Your task to perform on an android device: toggle sleep mode Image 0: 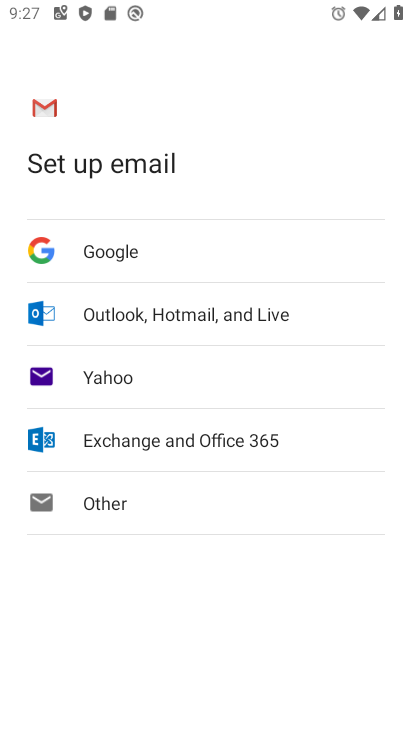
Step 0: drag from (197, 501) to (233, 246)
Your task to perform on an android device: toggle sleep mode Image 1: 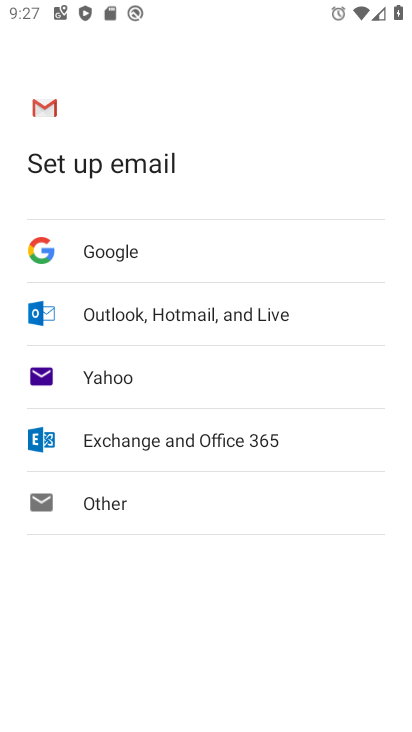
Step 1: press home button
Your task to perform on an android device: toggle sleep mode Image 2: 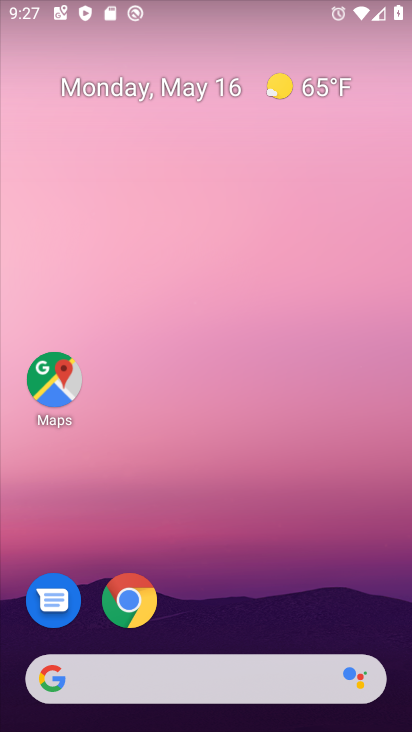
Step 2: drag from (175, 624) to (225, 166)
Your task to perform on an android device: toggle sleep mode Image 3: 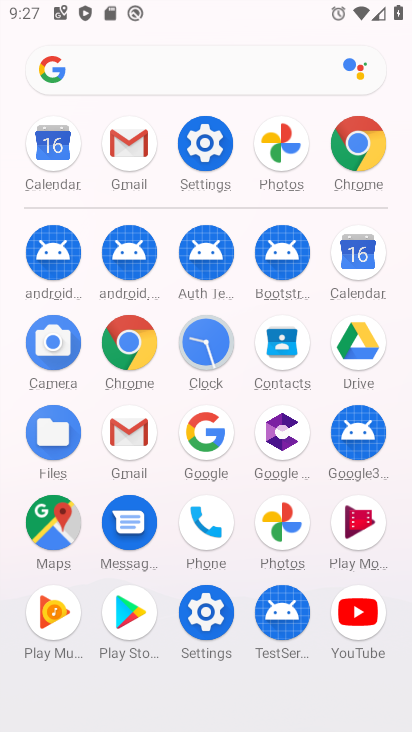
Step 3: click (204, 143)
Your task to perform on an android device: toggle sleep mode Image 4: 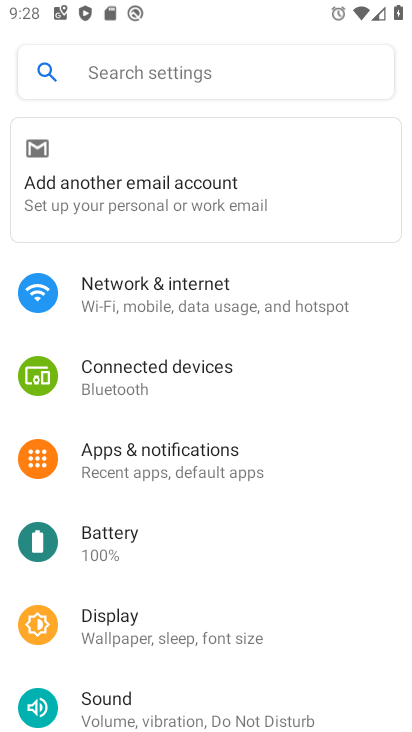
Step 4: click (143, 624)
Your task to perform on an android device: toggle sleep mode Image 5: 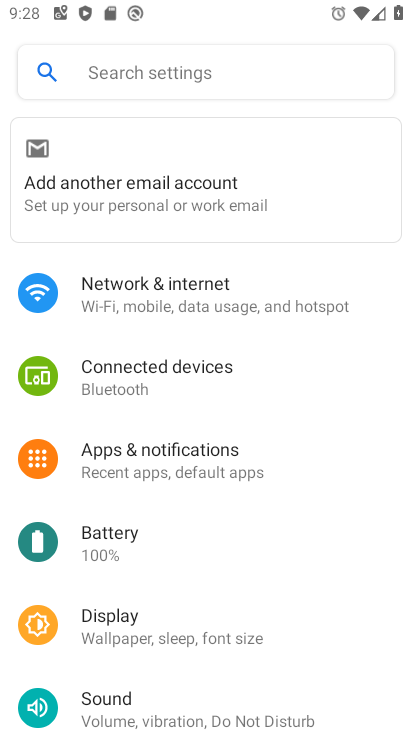
Step 5: click (143, 624)
Your task to perform on an android device: toggle sleep mode Image 6: 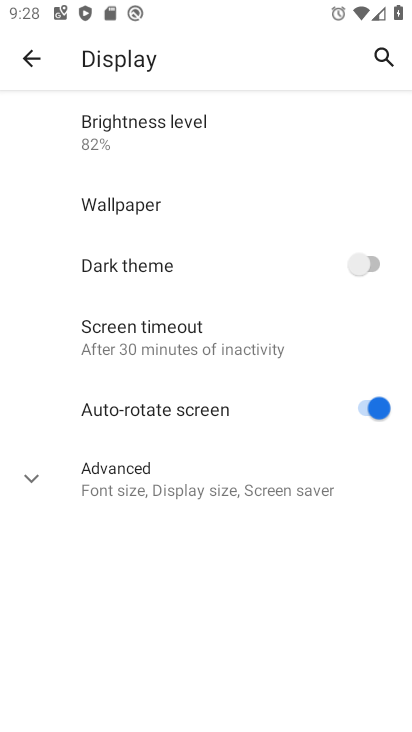
Step 6: click (173, 330)
Your task to perform on an android device: toggle sleep mode Image 7: 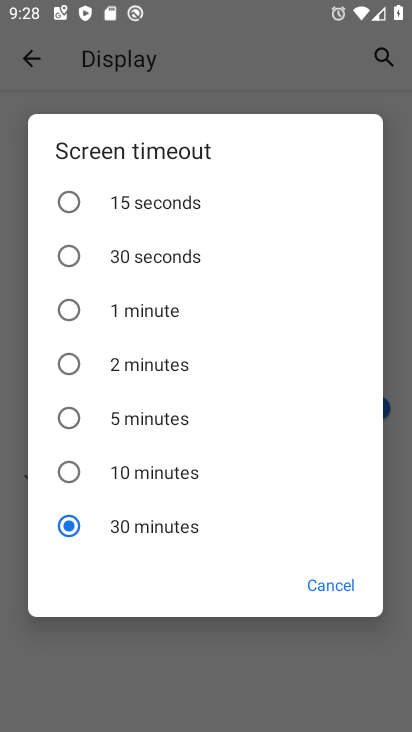
Step 7: click (108, 371)
Your task to perform on an android device: toggle sleep mode Image 8: 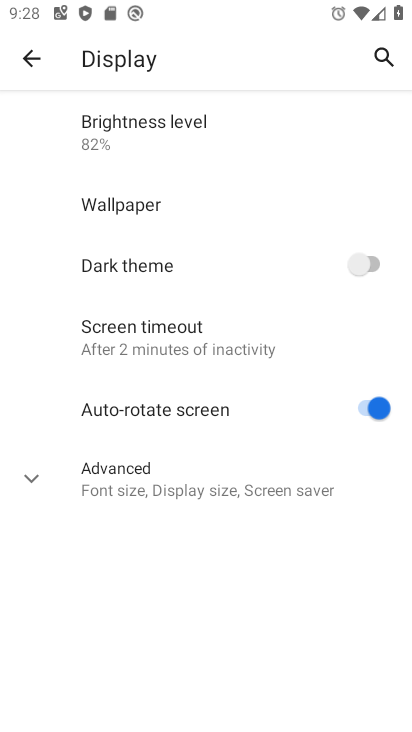
Step 8: task complete